Your task to perform on an android device: turn on javascript in the chrome app Image 0: 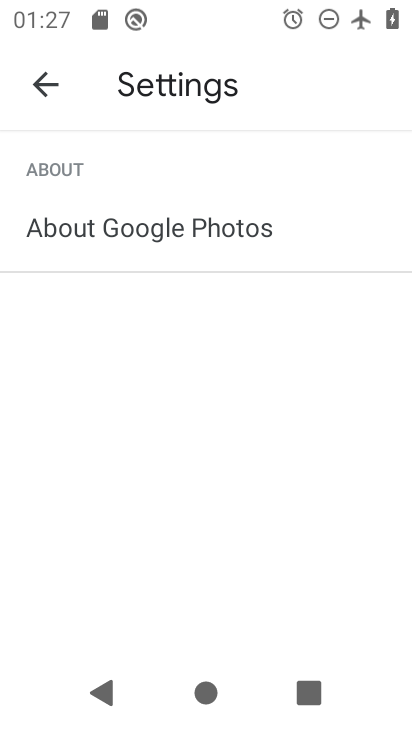
Step 0: press home button
Your task to perform on an android device: turn on javascript in the chrome app Image 1: 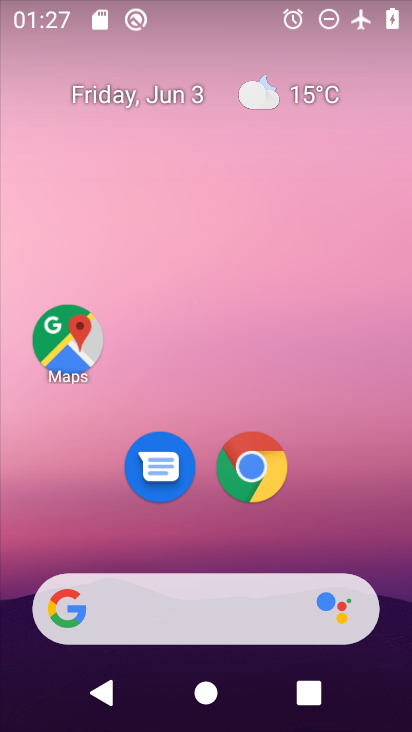
Step 1: click (250, 466)
Your task to perform on an android device: turn on javascript in the chrome app Image 2: 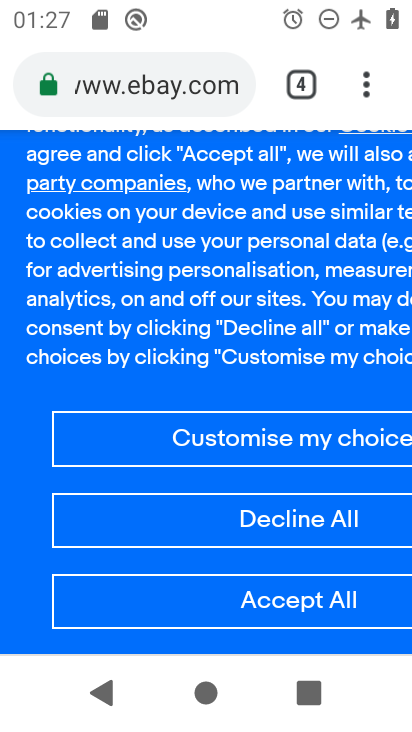
Step 2: click (365, 88)
Your task to perform on an android device: turn on javascript in the chrome app Image 3: 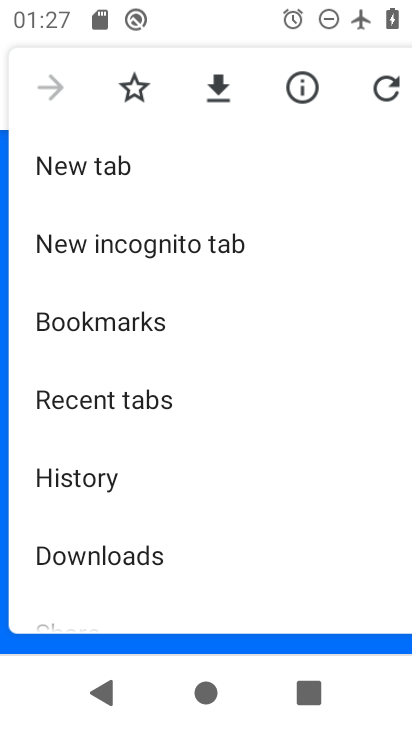
Step 3: drag from (198, 564) to (265, 151)
Your task to perform on an android device: turn on javascript in the chrome app Image 4: 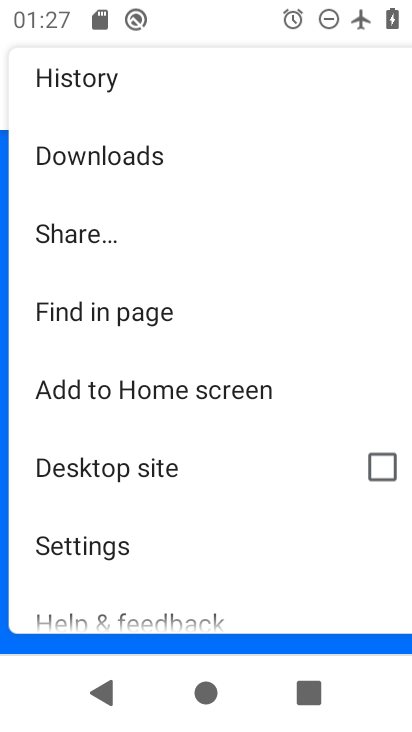
Step 4: click (77, 539)
Your task to perform on an android device: turn on javascript in the chrome app Image 5: 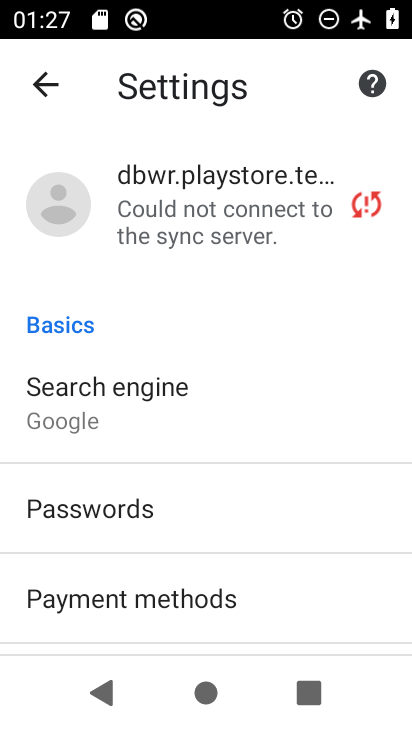
Step 5: drag from (238, 568) to (197, 253)
Your task to perform on an android device: turn on javascript in the chrome app Image 6: 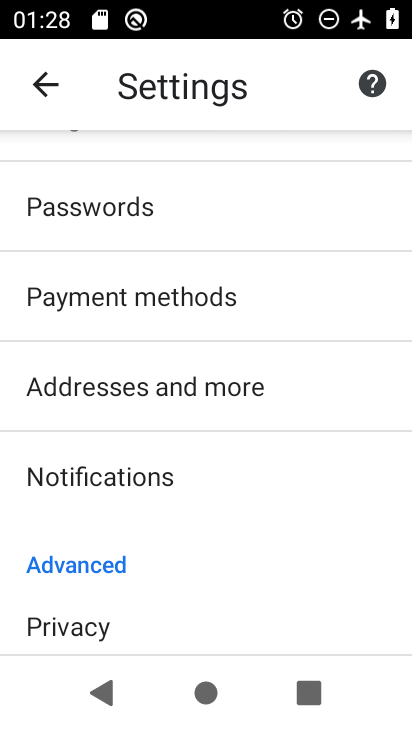
Step 6: drag from (166, 576) to (218, 293)
Your task to perform on an android device: turn on javascript in the chrome app Image 7: 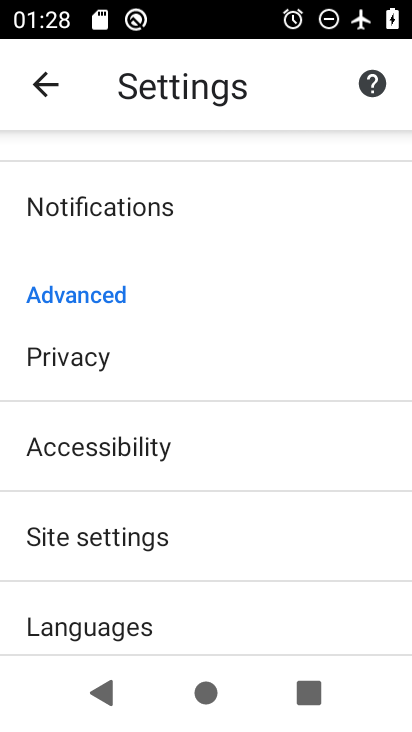
Step 7: drag from (203, 550) to (214, 246)
Your task to perform on an android device: turn on javascript in the chrome app Image 8: 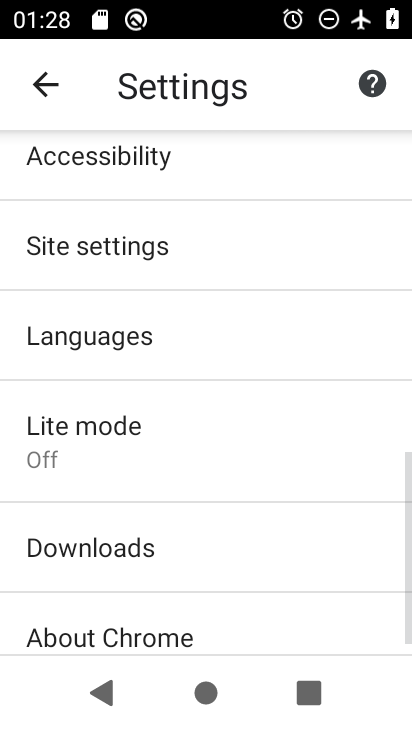
Step 8: click (82, 431)
Your task to perform on an android device: turn on javascript in the chrome app Image 9: 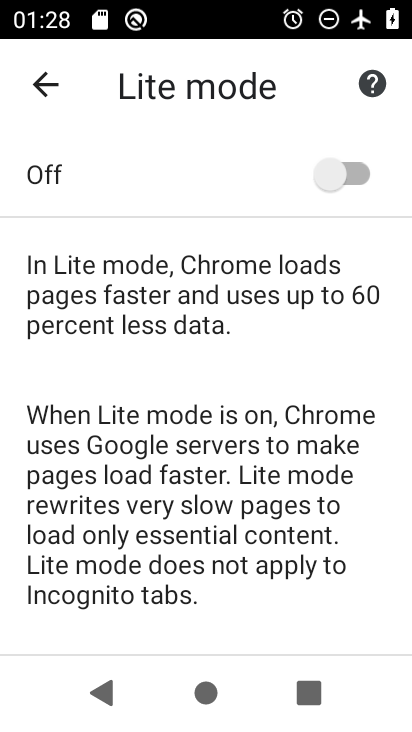
Step 9: press back button
Your task to perform on an android device: turn on javascript in the chrome app Image 10: 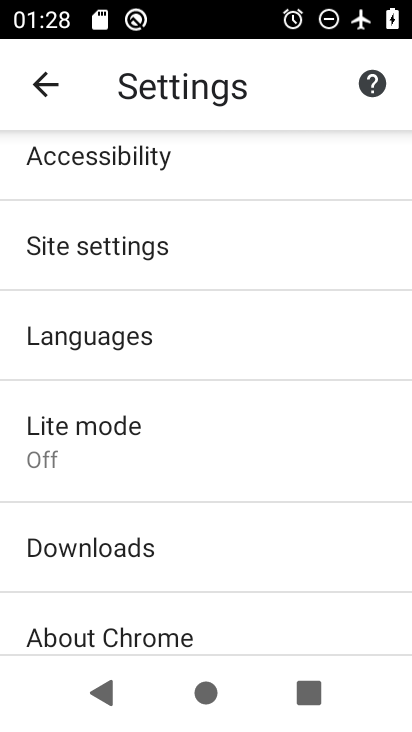
Step 10: click (85, 239)
Your task to perform on an android device: turn on javascript in the chrome app Image 11: 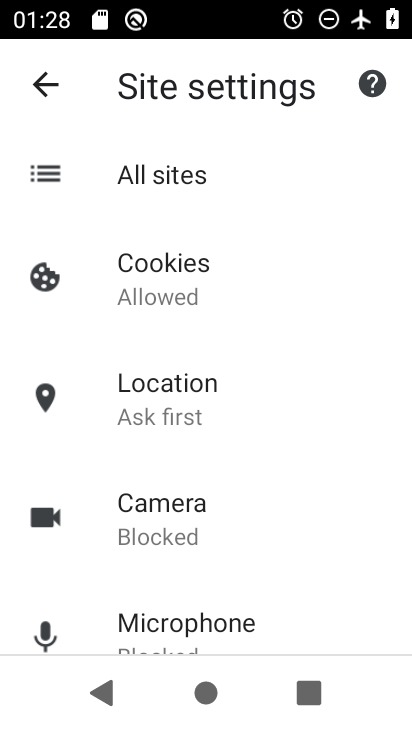
Step 11: drag from (267, 612) to (280, 284)
Your task to perform on an android device: turn on javascript in the chrome app Image 12: 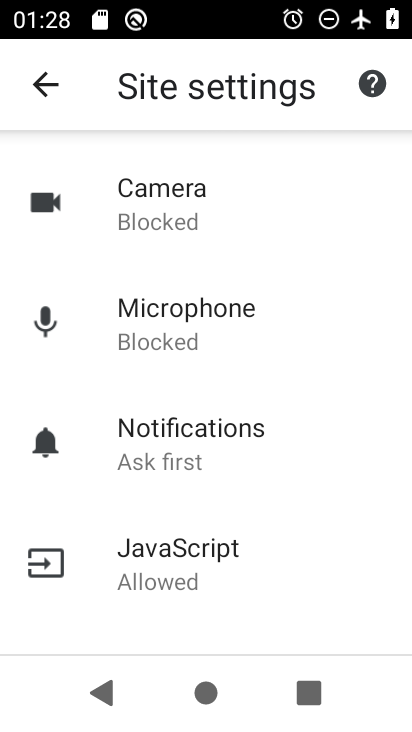
Step 12: click (178, 555)
Your task to perform on an android device: turn on javascript in the chrome app Image 13: 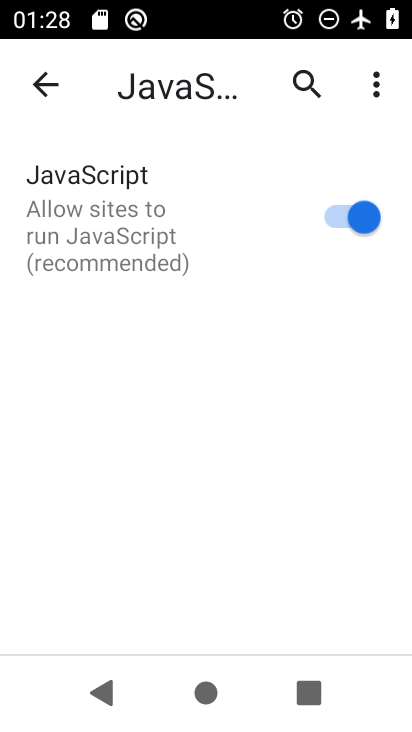
Step 13: task complete